Your task to perform on an android device: Open Chrome and go to the settings page Image 0: 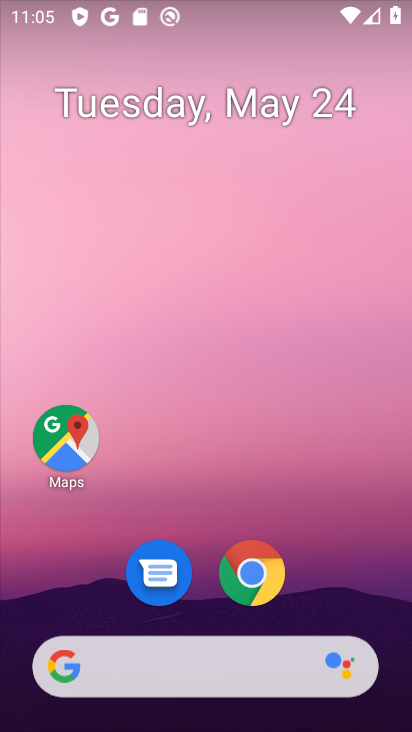
Step 0: click (273, 567)
Your task to perform on an android device: Open Chrome and go to the settings page Image 1: 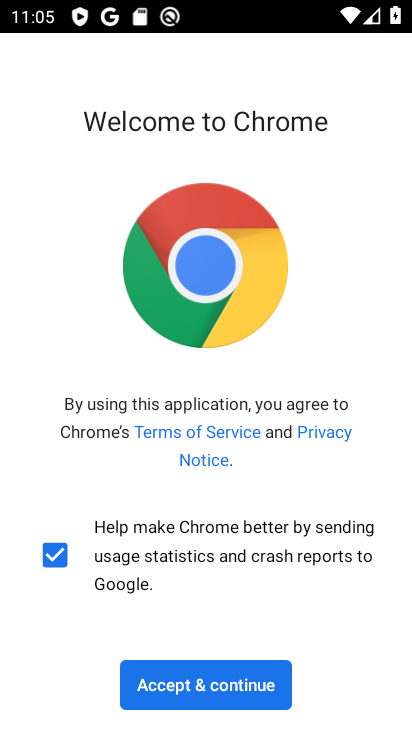
Step 1: click (209, 692)
Your task to perform on an android device: Open Chrome and go to the settings page Image 2: 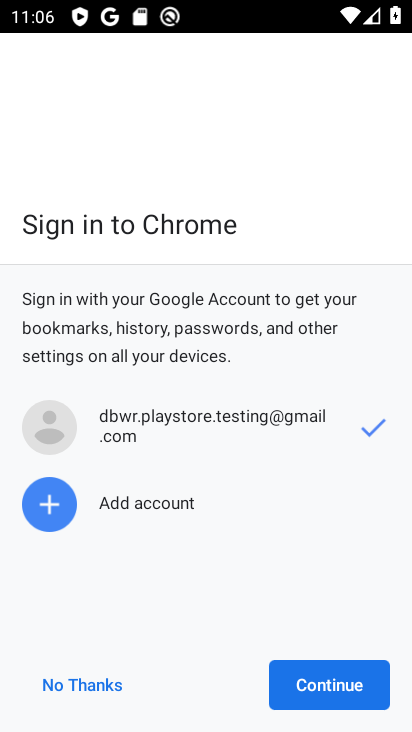
Step 2: click (327, 689)
Your task to perform on an android device: Open Chrome and go to the settings page Image 3: 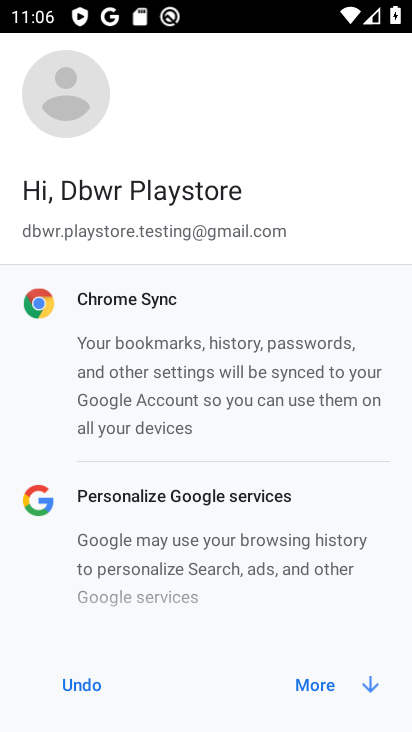
Step 3: click (328, 688)
Your task to perform on an android device: Open Chrome and go to the settings page Image 4: 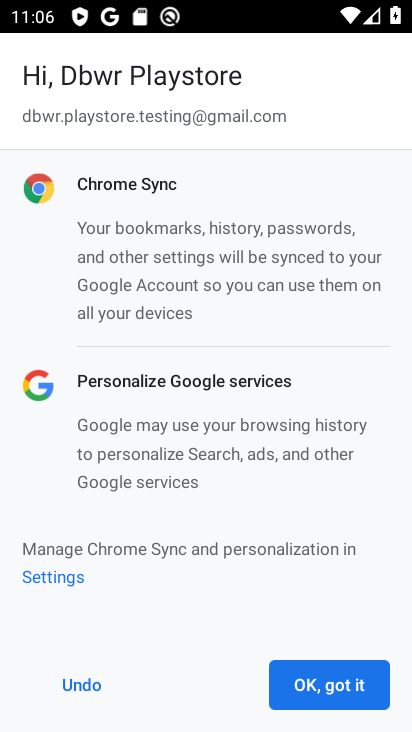
Step 4: click (328, 688)
Your task to perform on an android device: Open Chrome and go to the settings page Image 5: 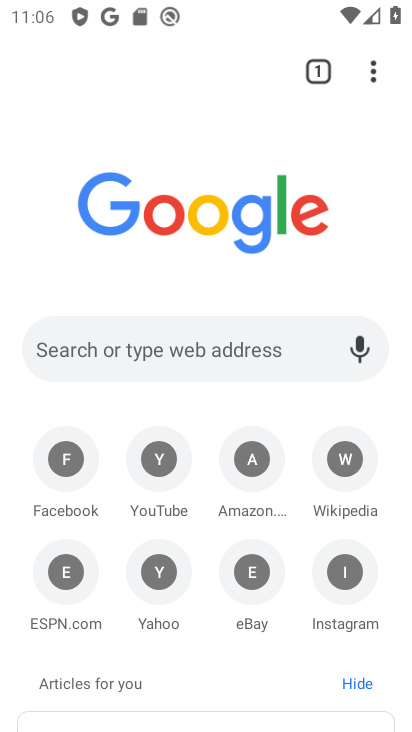
Step 5: task complete